Your task to perform on an android device: open app "Nova Launcher" (install if not already installed) Image 0: 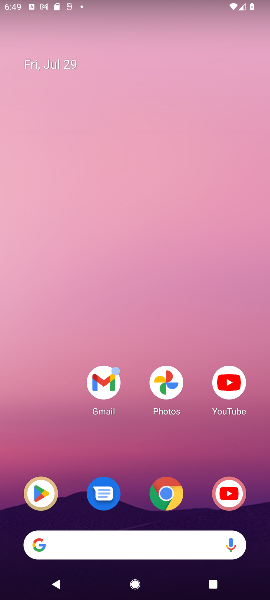
Step 0: drag from (155, 595) to (155, 212)
Your task to perform on an android device: open app "Nova Launcher" (install if not already installed) Image 1: 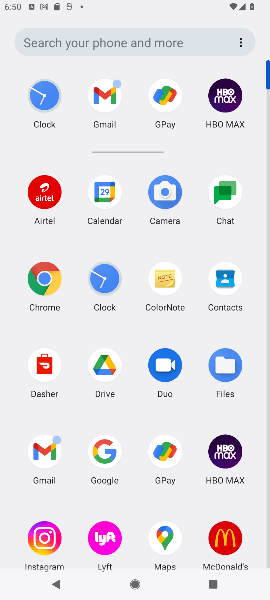
Step 1: drag from (133, 511) to (133, 226)
Your task to perform on an android device: open app "Nova Launcher" (install if not already installed) Image 2: 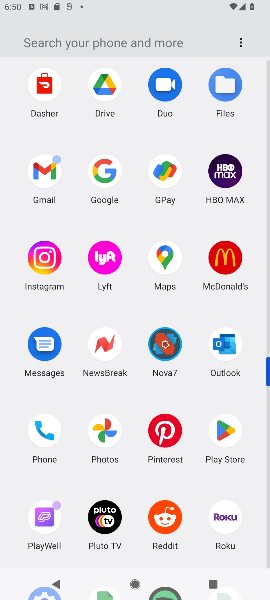
Step 2: click (223, 430)
Your task to perform on an android device: open app "Nova Launcher" (install if not already installed) Image 3: 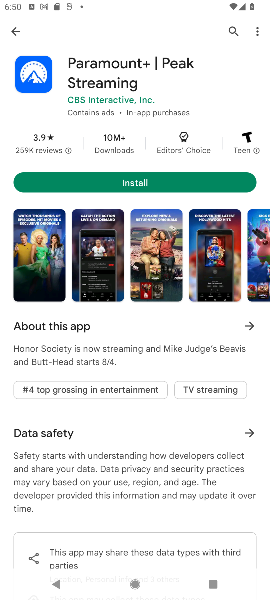
Step 3: click (233, 30)
Your task to perform on an android device: open app "Nova Launcher" (install if not already installed) Image 4: 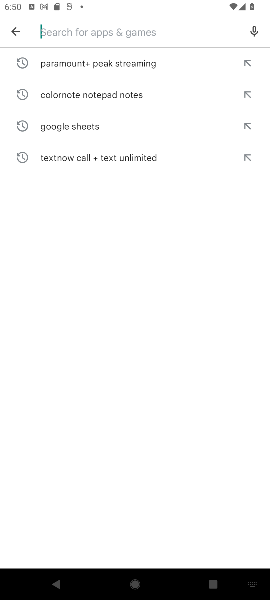
Step 4: type "Nova Launcher"
Your task to perform on an android device: open app "Nova Launcher" (install if not already installed) Image 5: 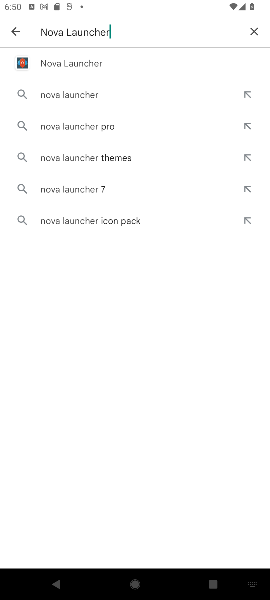
Step 5: click (90, 60)
Your task to perform on an android device: open app "Nova Launcher" (install if not already installed) Image 6: 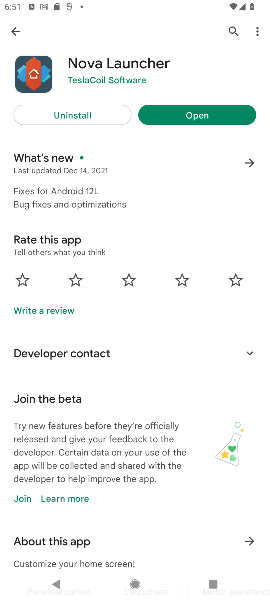
Step 6: click (203, 118)
Your task to perform on an android device: open app "Nova Launcher" (install if not already installed) Image 7: 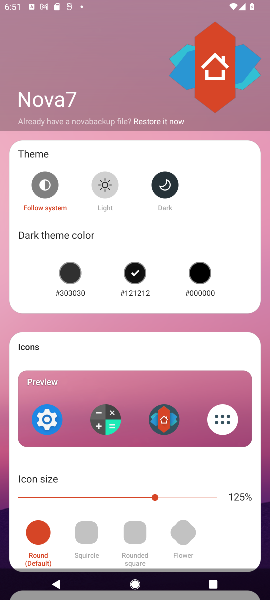
Step 7: task complete